Your task to perform on an android device: star an email in the gmail app Image 0: 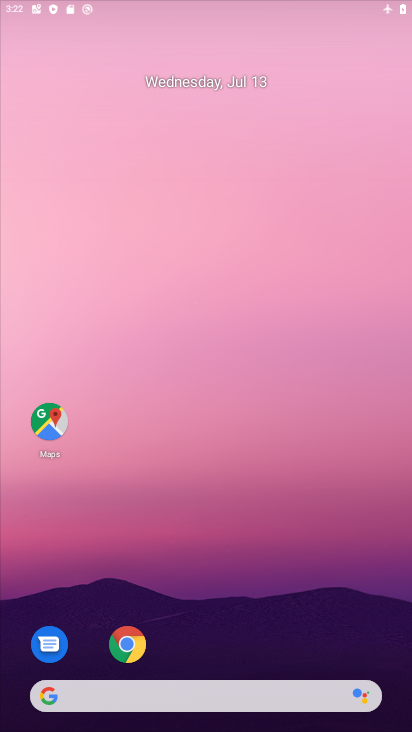
Step 0: drag from (290, 634) to (226, 208)
Your task to perform on an android device: star an email in the gmail app Image 1: 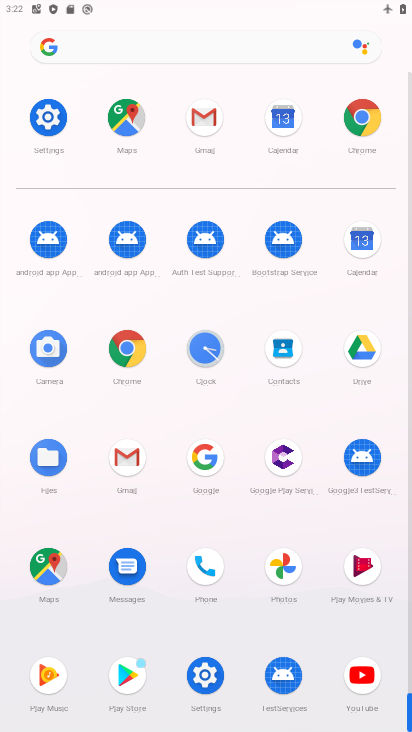
Step 1: click (212, 121)
Your task to perform on an android device: star an email in the gmail app Image 2: 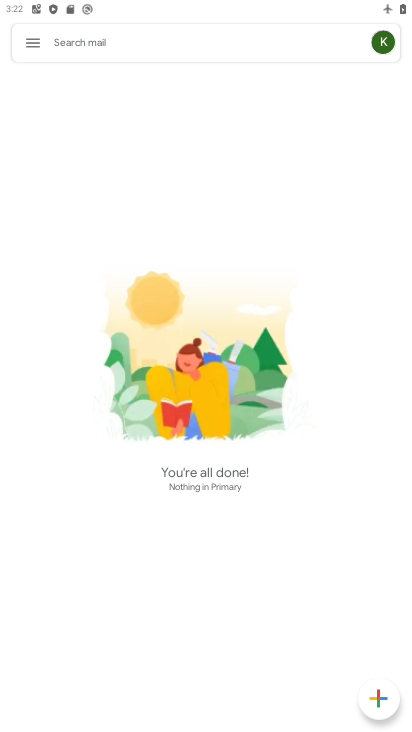
Step 2: click (34, 36)
Your task to perform on an android device: star an email in the gmail app Image 3: 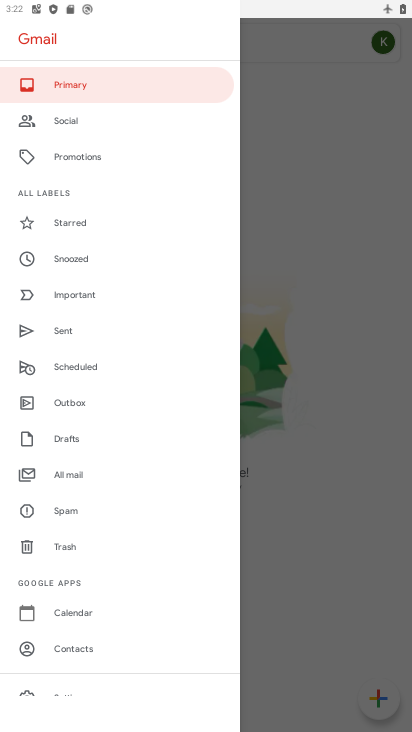
Step 3: click (68, 466)
Your task to perform on an android device: star an email in the gmail app Image 4: 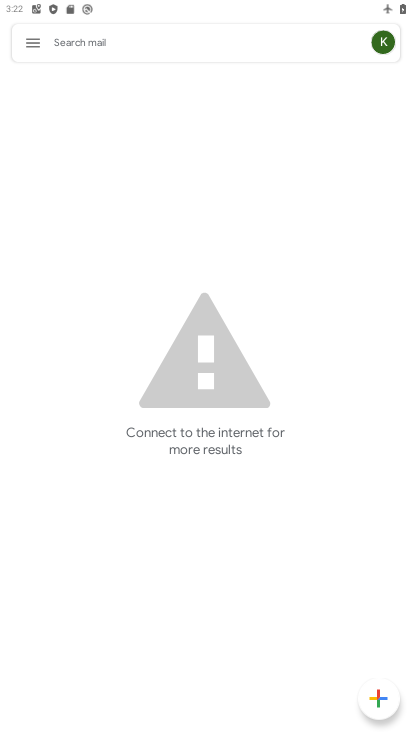
Step 4: task complete